Your task to perform on an android device: open a bookmark in the chrome app Image 0: 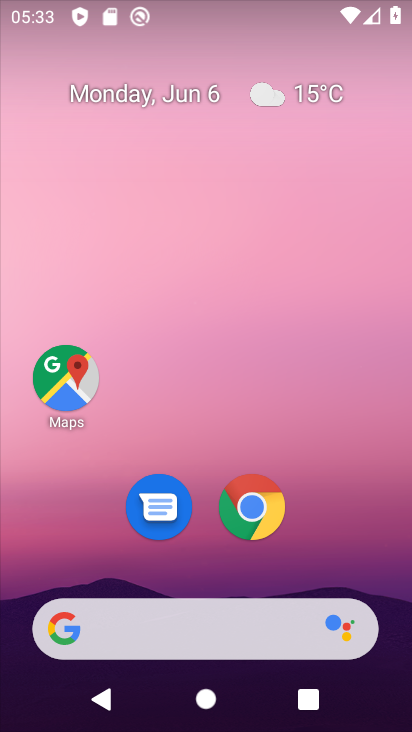
Step 0: click (239, 499)
Your task to perform on an android device: open a bookmark in the chrome app Image 1: 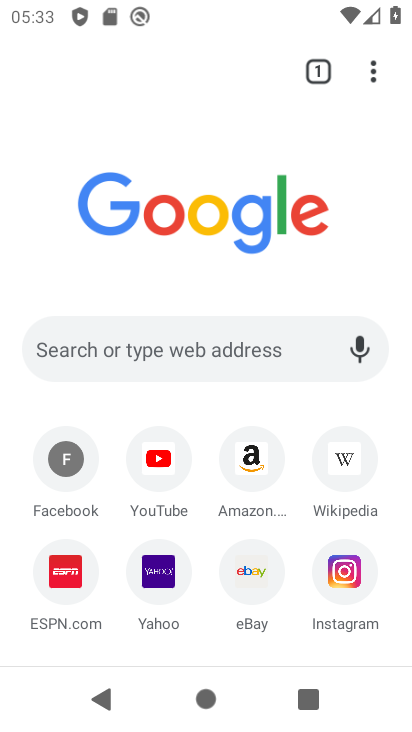
Step 1: click (378, 76)
Your task to perform on an android device: open a bookmark in the chrome app Image 2: 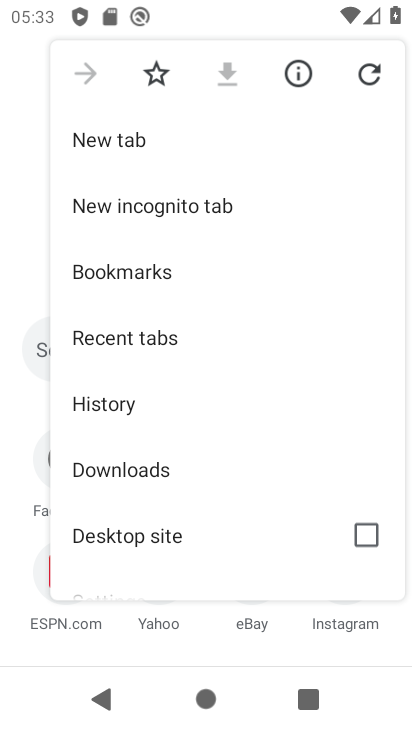
Step 2: click (128, 268)
Your task to perform on an android device: open a bookmark in the chrome app Image 3: 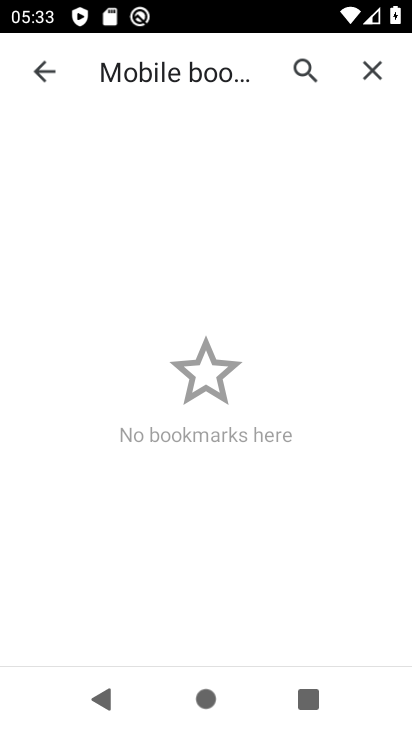
Step 3: task complete